Your task to perform on an android device: Go to Wikipedia Image 0: 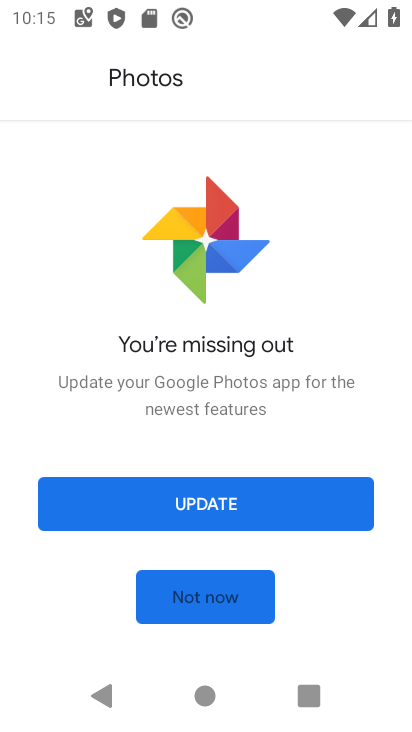
Step 0: press back button
Your task to perform on an android device: Go to Wikipedia Image 1: 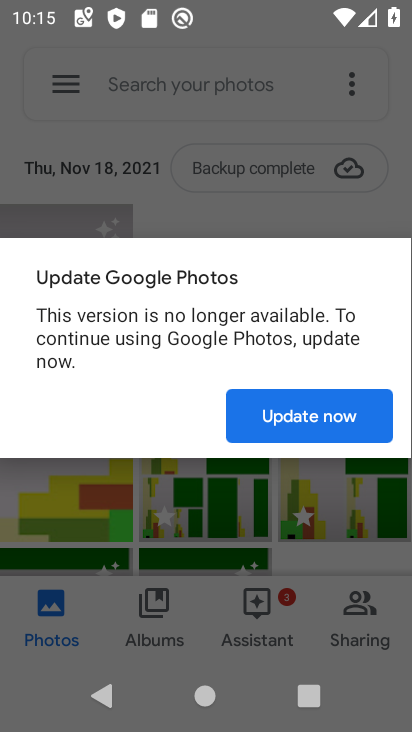
Step 1: press back button
Your task to perform on an android device: Go to Wikipedia Image 2: 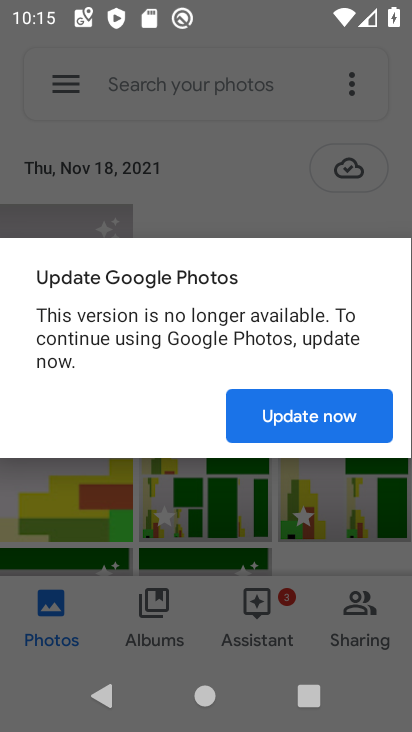
Step 2: press home button
Your task to perform on an android device: Go to Wikipedia Image 3: 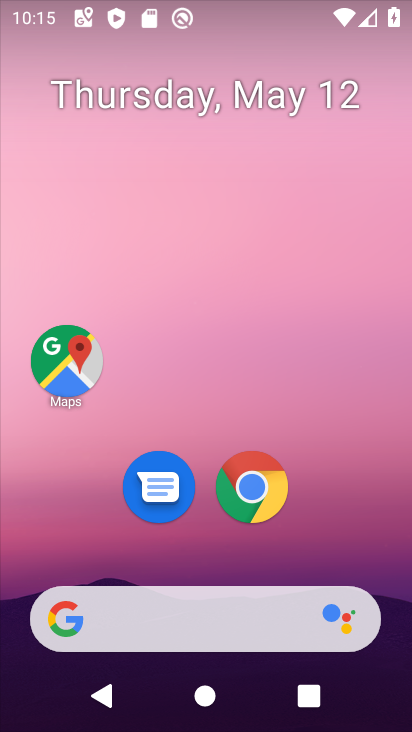
Step 3: click (244, 490)
Your task to perform on an android device: Go to Wikipedia Image 4: 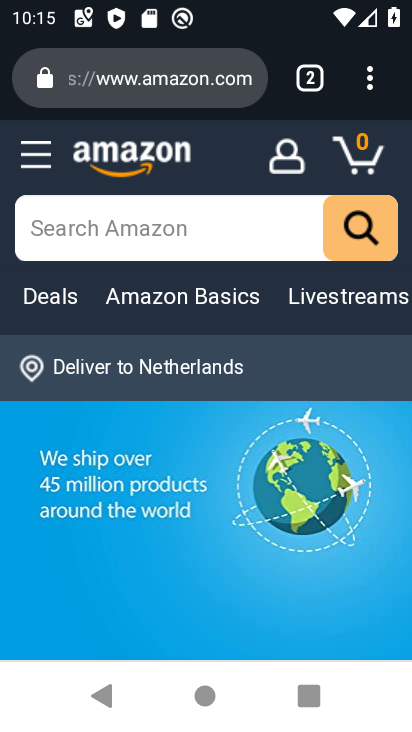
Step 4: click (302, 81)
Your task to perform on an android device: Go to Wikipedia Image 5: 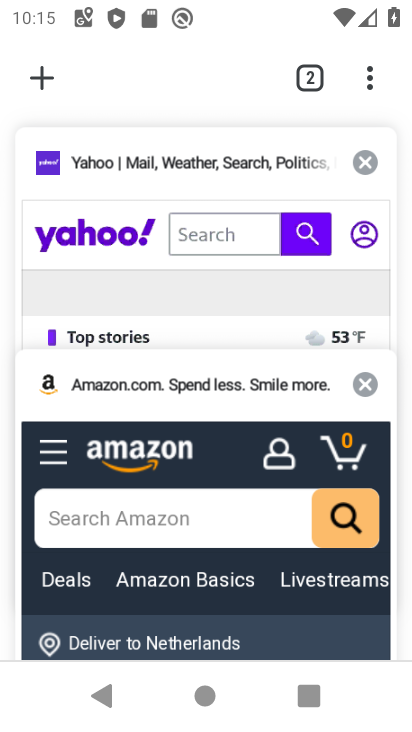
Step 5: click (368, 380)
Your task to perform on an android device: Go to Wikipedia Image 6: 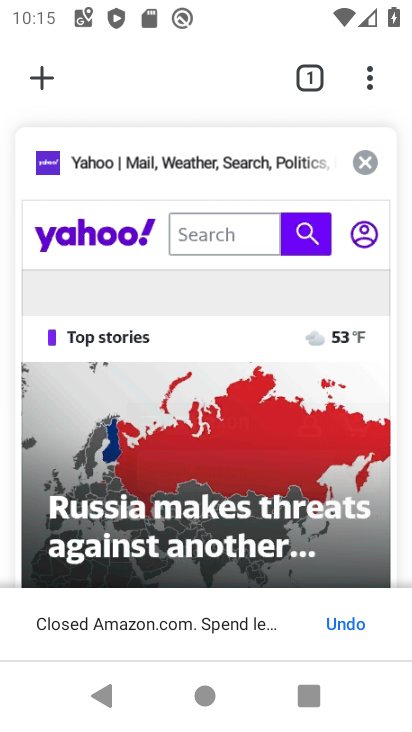
Step 6: click (368, 163)
Your task to perform on an android device: Go to Wikipedia Image 7: 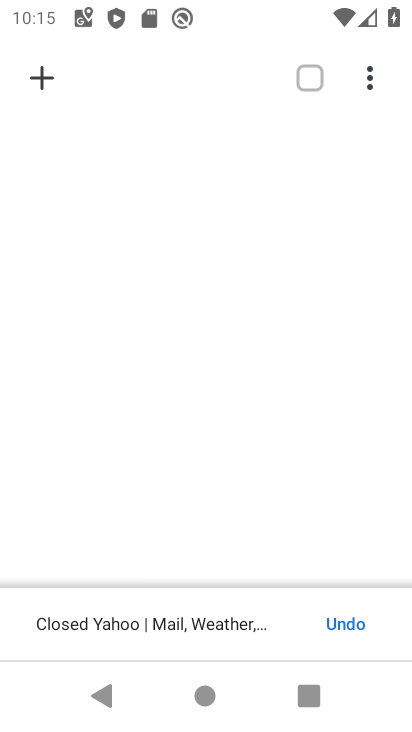
Step 7: click (45, 81)
Your task to perform on an android device: Go to Wikipedia Image 8: 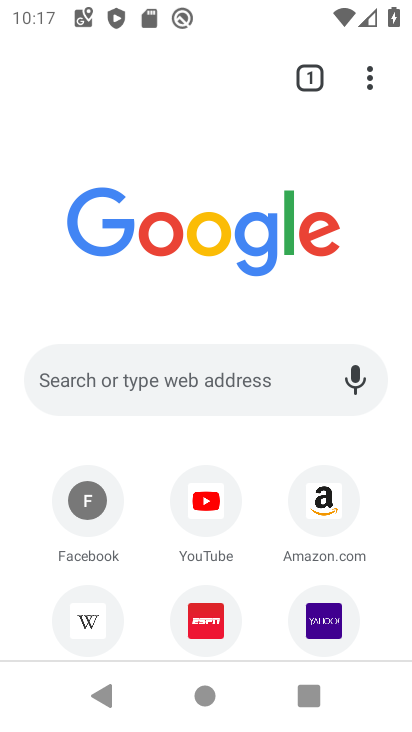
Step 8: click (101, 618)
Your task to perform on an android device: Go to Wikipedia Image 9: 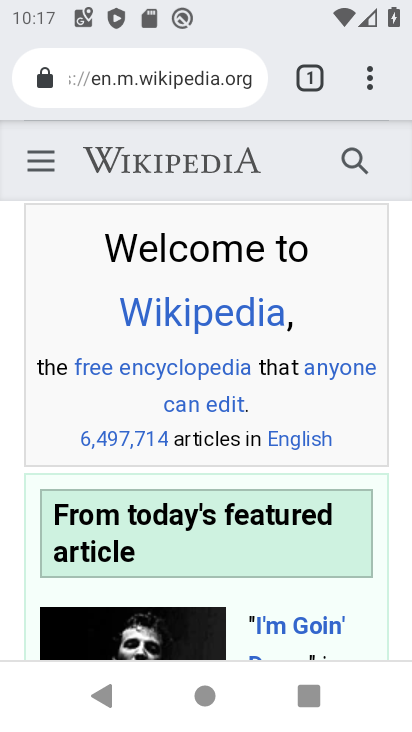
Step 9: task complete